Your task to perform on an android device: Open Google Maps Image 0: 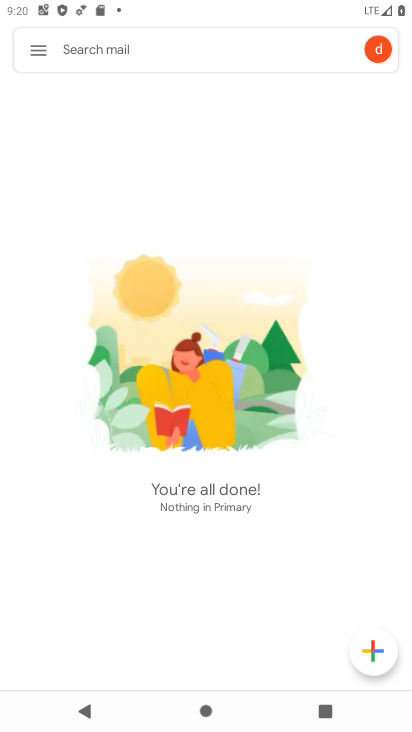
Step 0: press home button
Your task to perform on an android device: Open Google Maps Image 1: 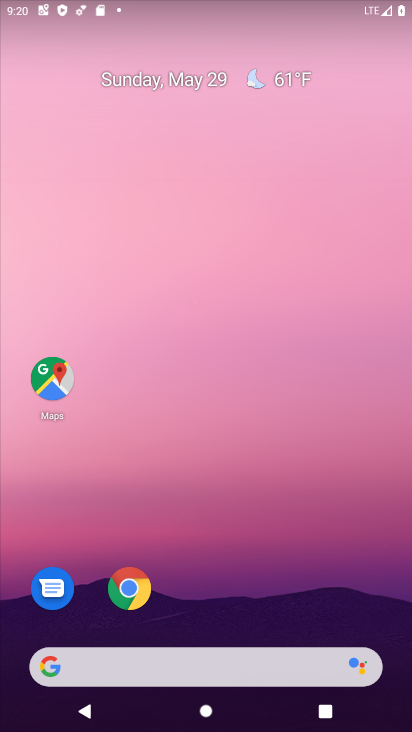
Step 1: click (56, 382)
Your task to perform on an android device: Open Google Maps Image 2: 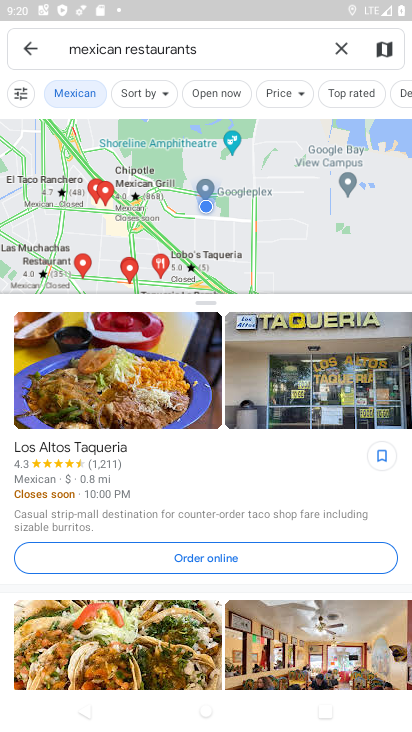
Step 2: task complete